Your task to perform on an android device: clear history in the chrome app Image 0: 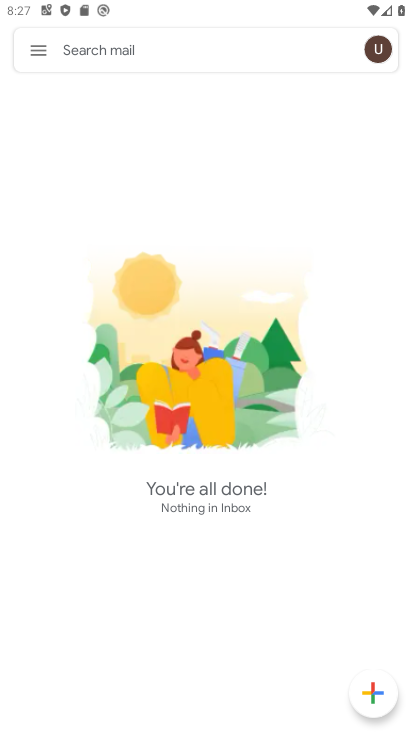
Step 0: press home button
Your task to perform on an android device: clear history in the chrome app Image 1: 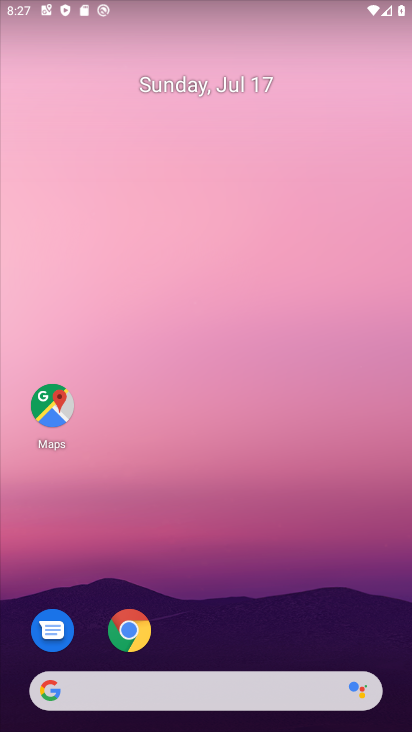
Step 1: click (128, 627)
Your task to perform on an android device: clear history in the chrome app Image 2: 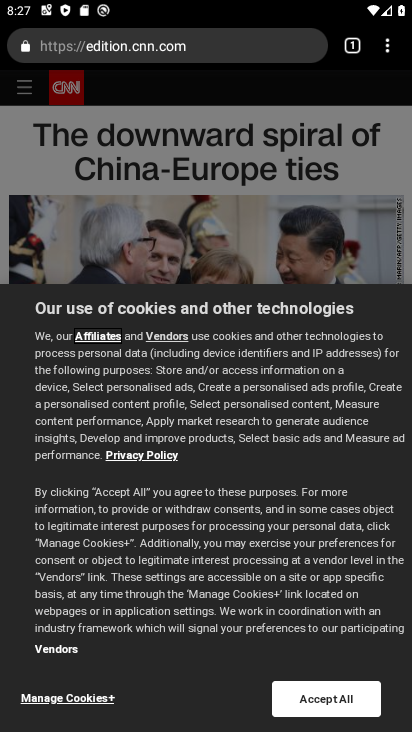
Step 2: click (390, 44)
Your task to perform on an android device: clear history in the chrome app Image 3: 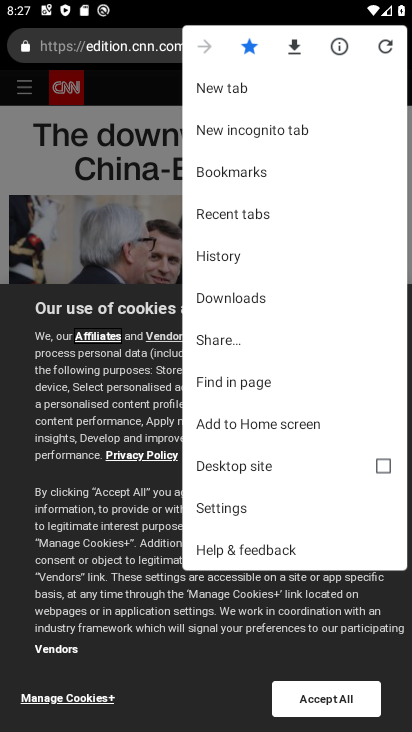
Step 3: click (225, 253)
Your task to perform on an android device: clear history in the chrome app Image 4: 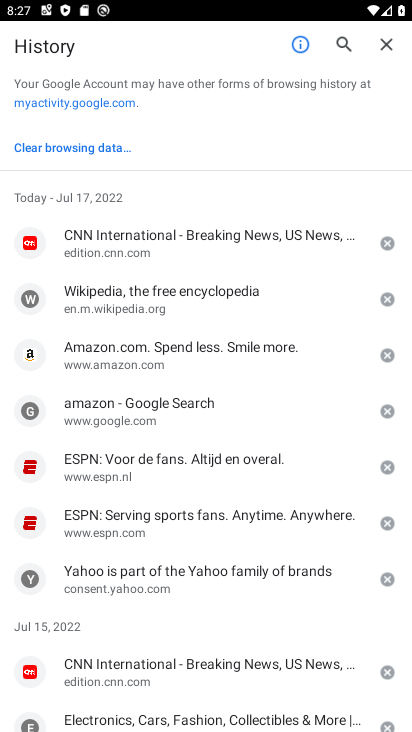
Step 4: click (75, 143)
Your task to perform on an android device: clear history in the chrome app Image 5: 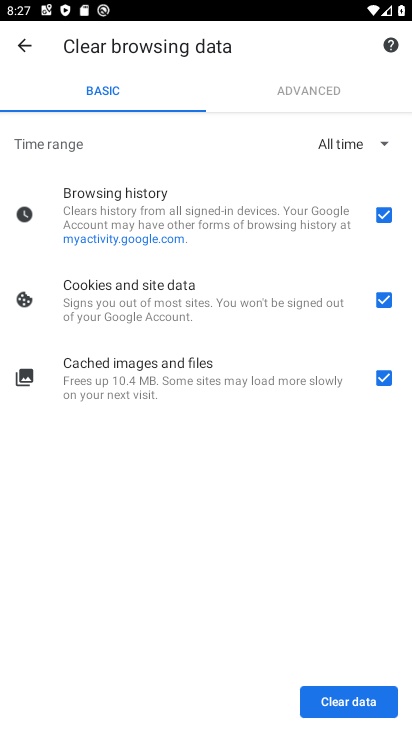
Step 5: click (358, 702)
Your task to perform on an android device: clear history in the chrome app Image 6: 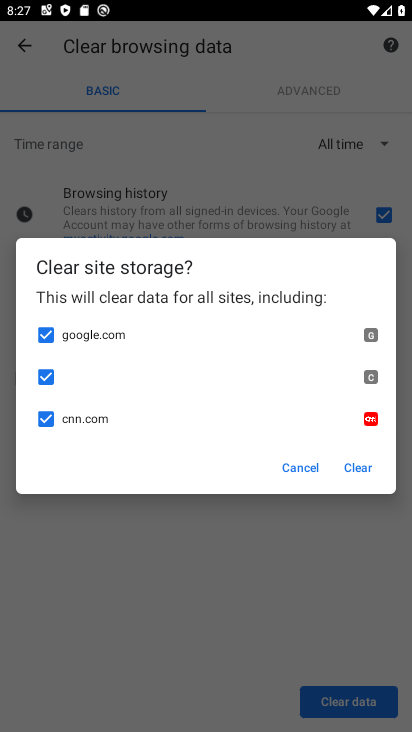
Step 6: click (355, 469)
Your task to perform on an android device: clear history in the chrome app Image 7: 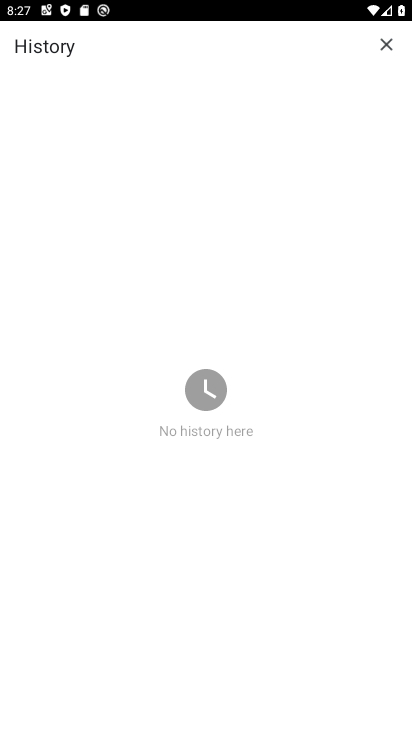
Step 7: task complete